Your task to perform on an android device: turn on notifications settings in the gmail app Image 0: 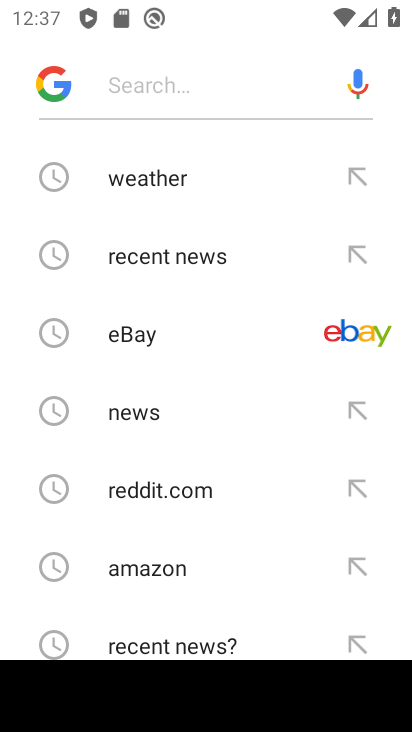
Step 0: press home button
Your task to perform on an android device: turn on notifications settings in the gmail app Image 1: 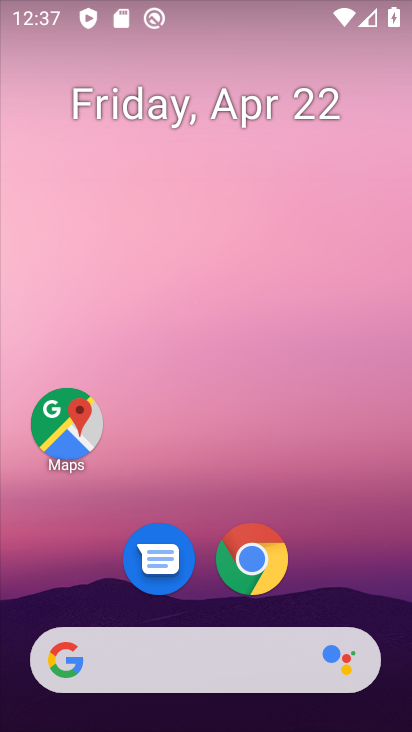
Step 1: drag from (215, 704) to (213, 193)
Your task to perform on an android device: turn on notifications settings in the gmail app Image 2: 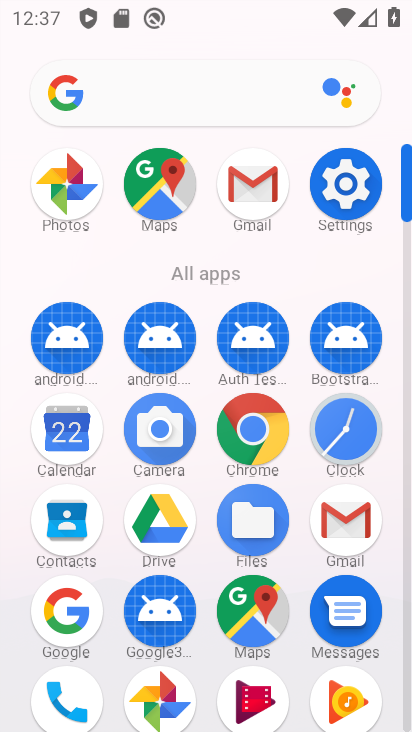
Step 2: click (253, 186)
Your task to perform on an android device: turn on notifications settings in the gmail app Image 3: 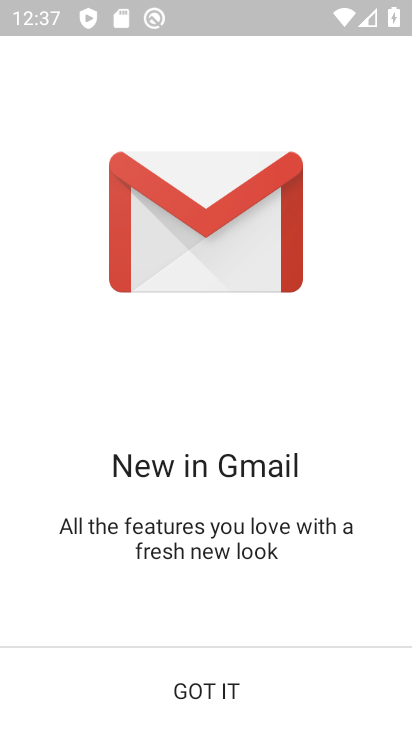
Step 3: click (209, 677)
Your task to perform on an android device: turn on notifications settings in the gmail app Image 4: 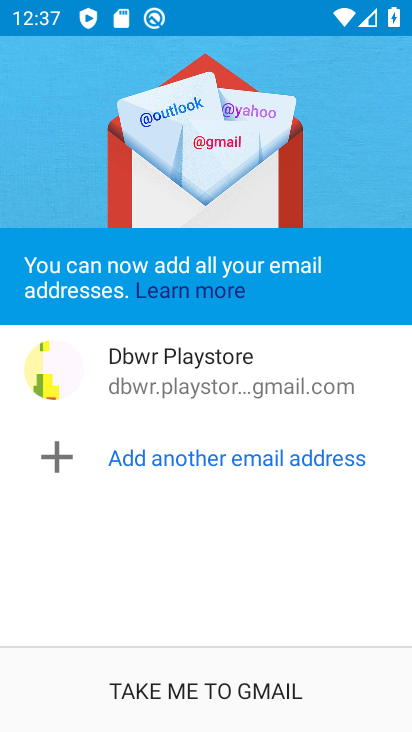
Step 4: click (217, 684)
Your task to perform on an android device: turn on notifications settings in the gmail app Image 5: 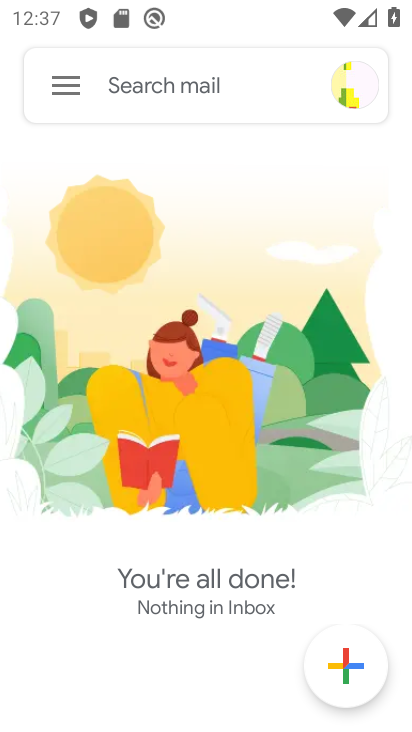
Step 5: click (62, 78)
Your task to perform on an android device: turn on notifications settings in the gmail app Image 6: 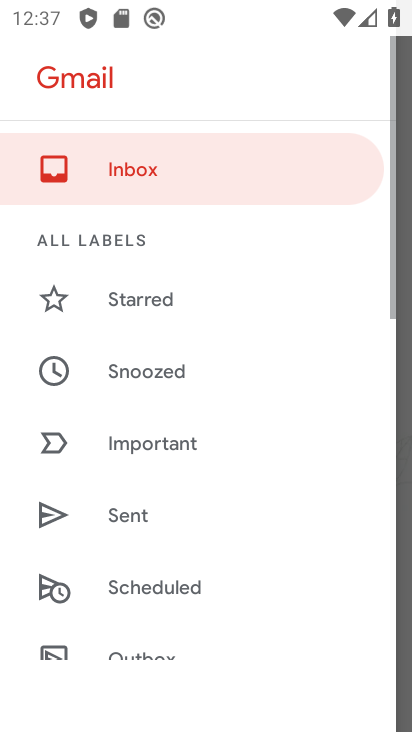
Step 6: drag from (154, 626) to (169, 267)
Your task to perform on an android device: turn on notifications settings in the gmail app Image 7: 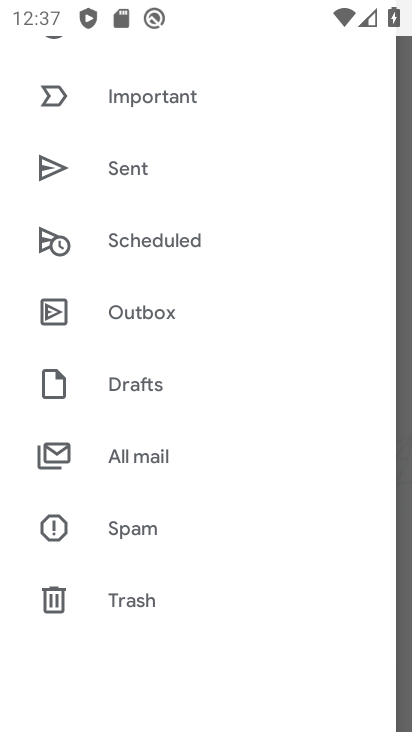
Step 7: drag from (174, 605) to (195, 163)
Your task to perform on an android device: turn on notifications settings in the gmail app Image 8: 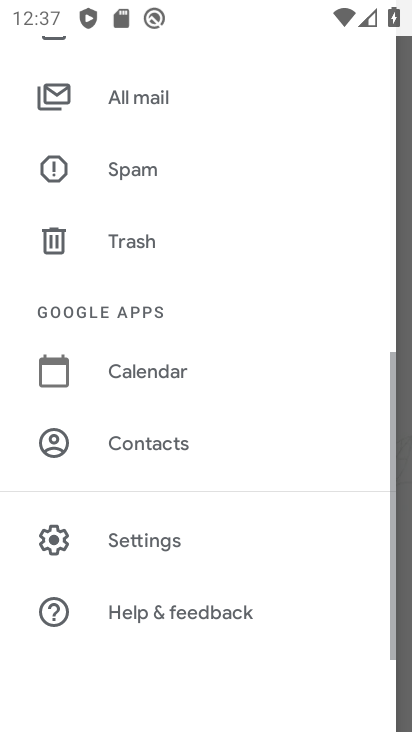
Step 8: click (134, 537)
Your task to perform on an android device: turn on notifications settings in the gmail app Image 9: 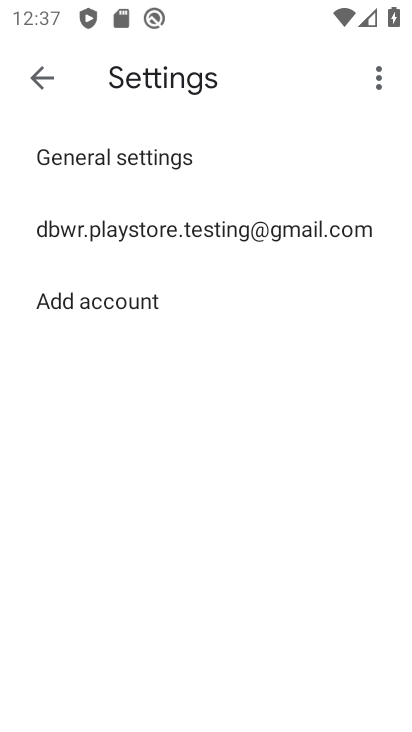
Step 9: click (221, 225)
Your task to perform on an android device: turn on notifications settings in the gmail app Image 10: 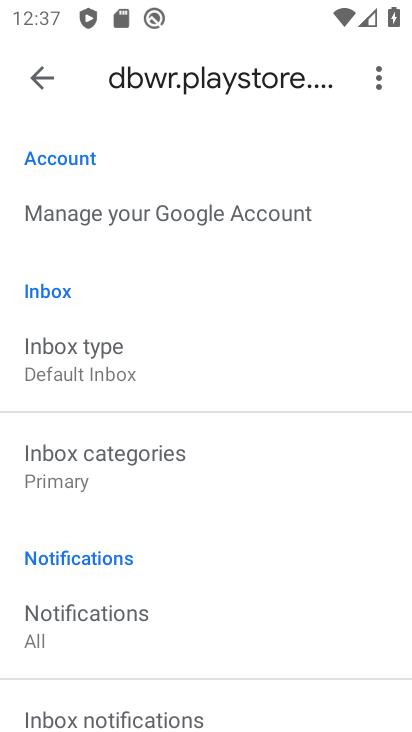
Step 10: task complete